Your task to perform on an android device: Add macbook pro to the cart on bestbuy.com Image 0: 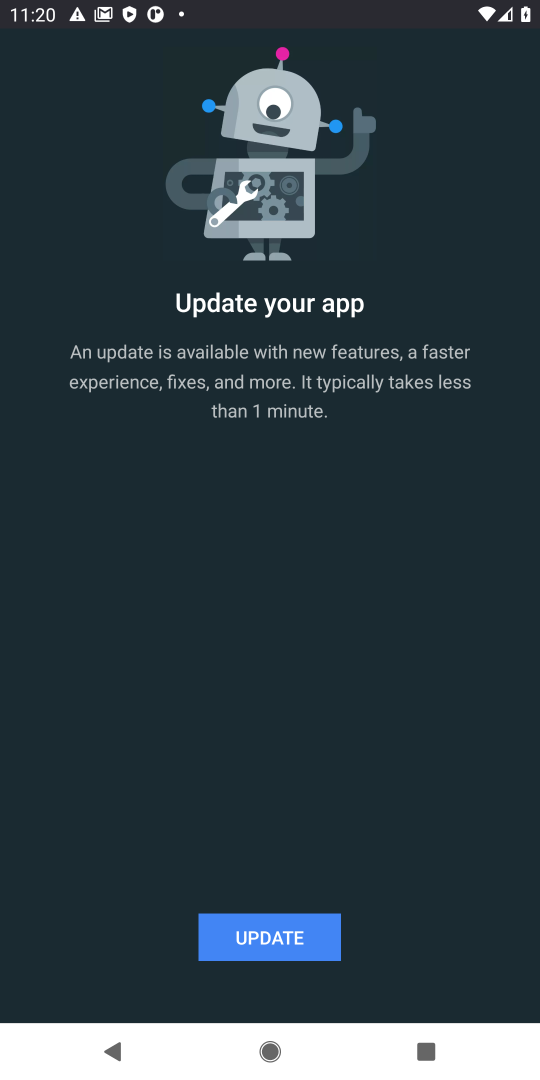
Step 0: press home button
Your task to perform on an android device: Add macbook pro to the cart on bestbuy.com Image 1: 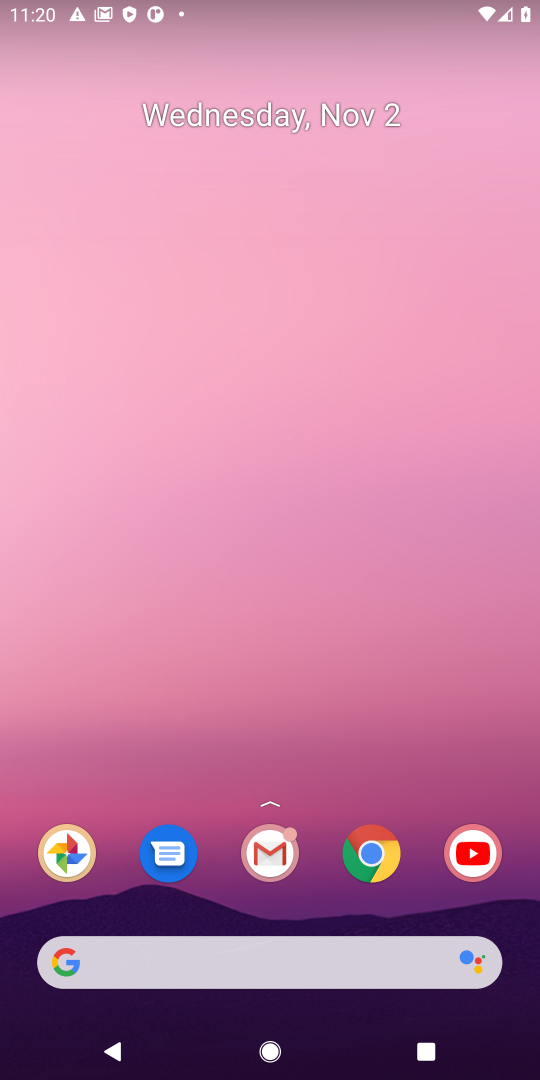
Step 1: click (363, 848)
Your task to perform on an android device: Add macbook pro to the cart on bestbuy.com Image 2: 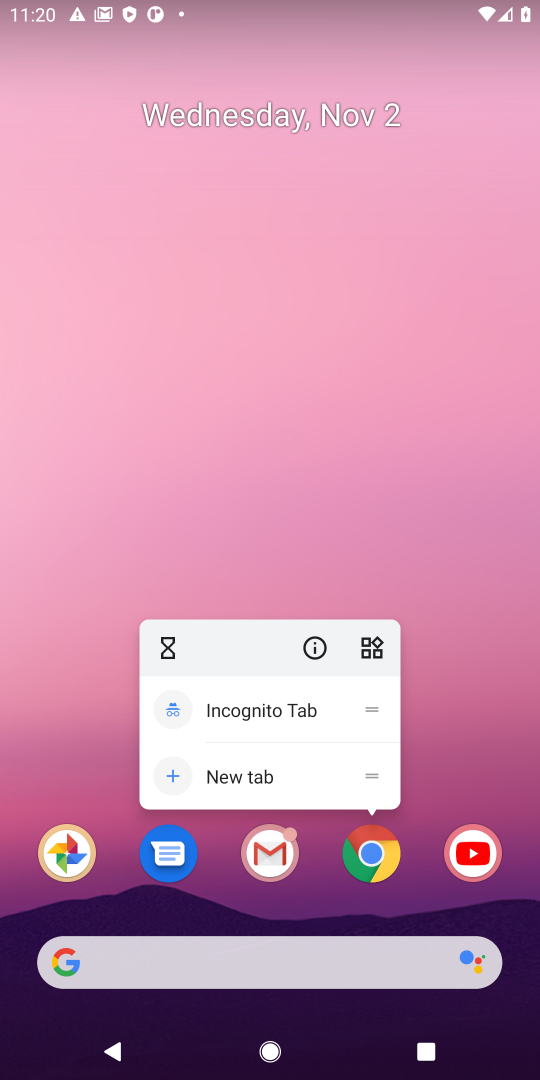
Step 2: click (370, 854)
Your task to perform on an android device: Add macbook pro to the cart on bestbuy.com Image 3: 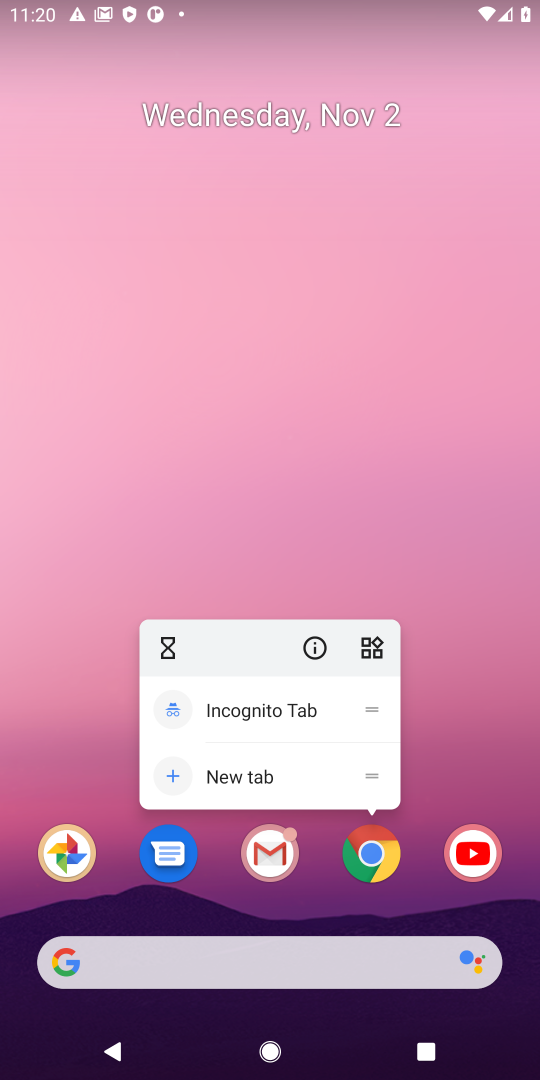
Step 3: click (373, 849)
Your task to perform on an android device: Add macbook pro to the cart on bestbuy.com Image 4: 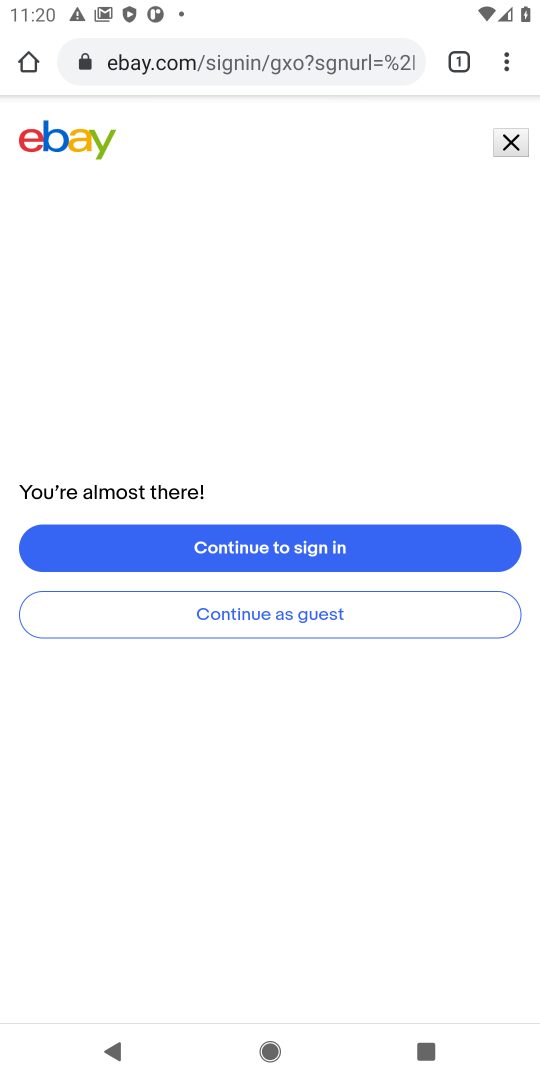
Step 4: click (286, 61)
Your task to perform on an android device: Add macbook pro to the cart on bestbuy.com Image 5: 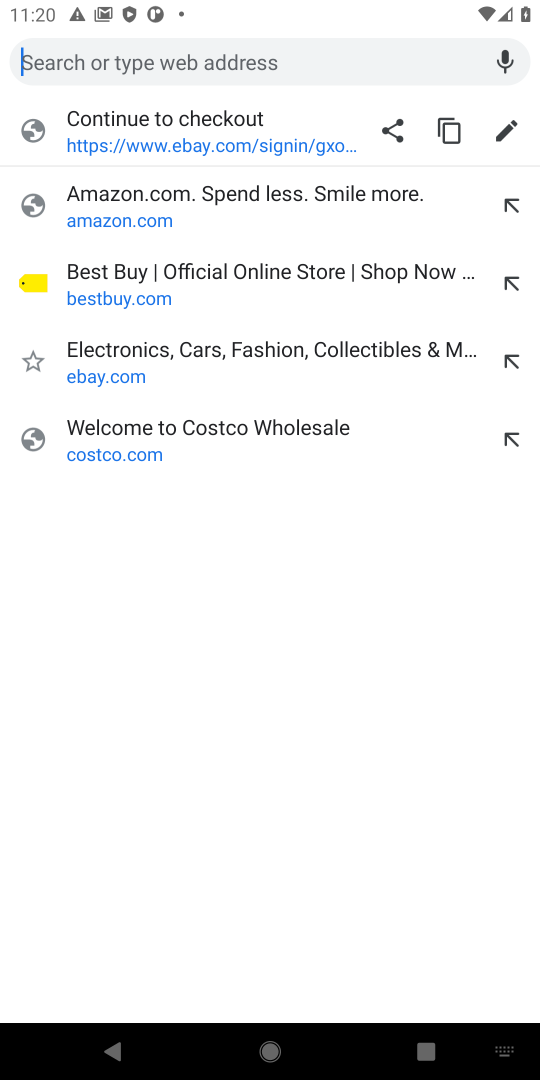
Step 5: click (94, 296)
Your task to perform on an android device: Add macbook pro to the cart on bestbuy.com Image 6: 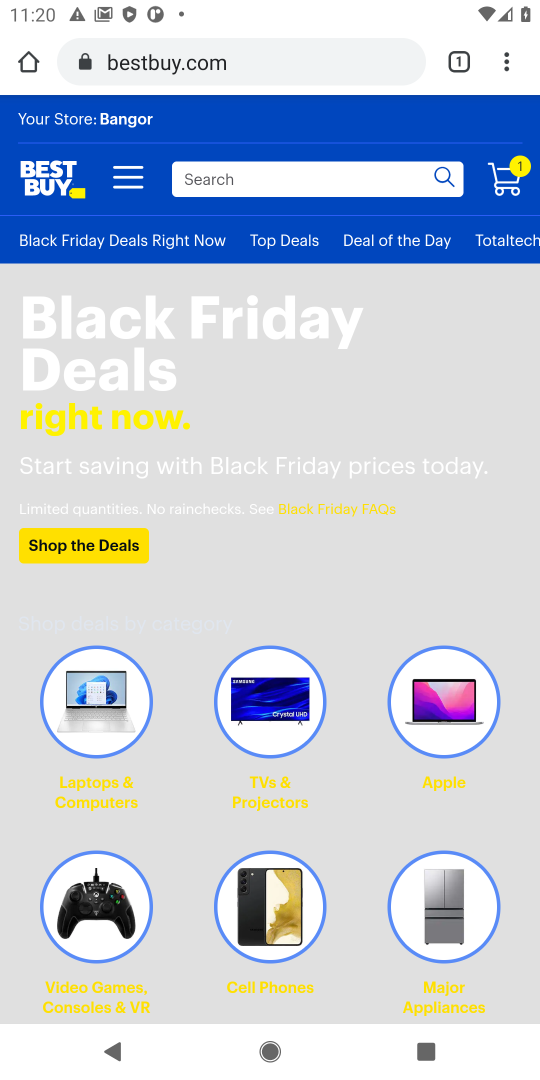
Step 6: click (271, 177)
Your task to perform on an android device: Add macbook pro to the cart on bestbuy.com Image 7: 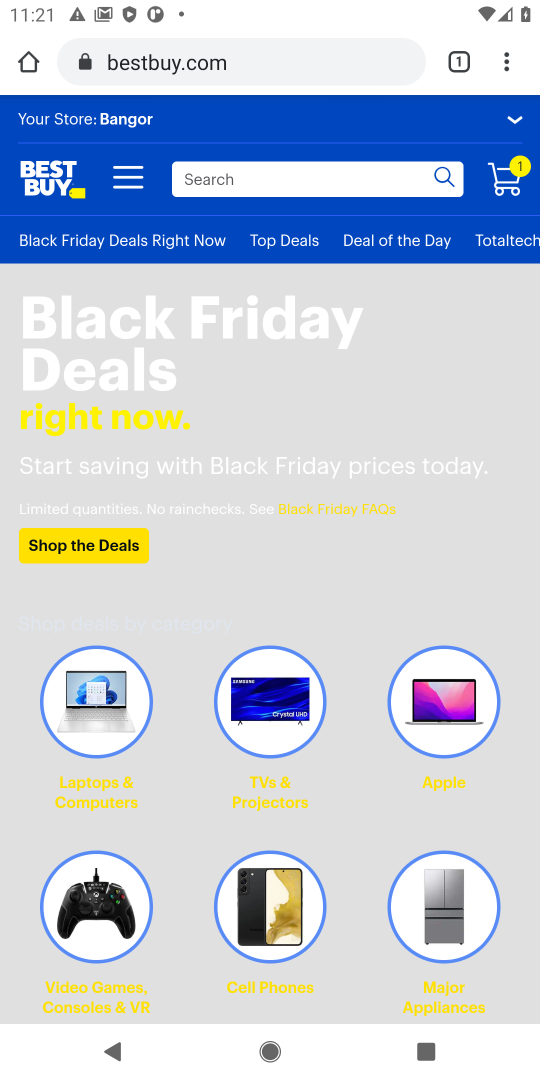
Step 7: click (271, 178)
Your task to perform on an android device: Add macbook pro to the cart on bestbuy.com Image 8: 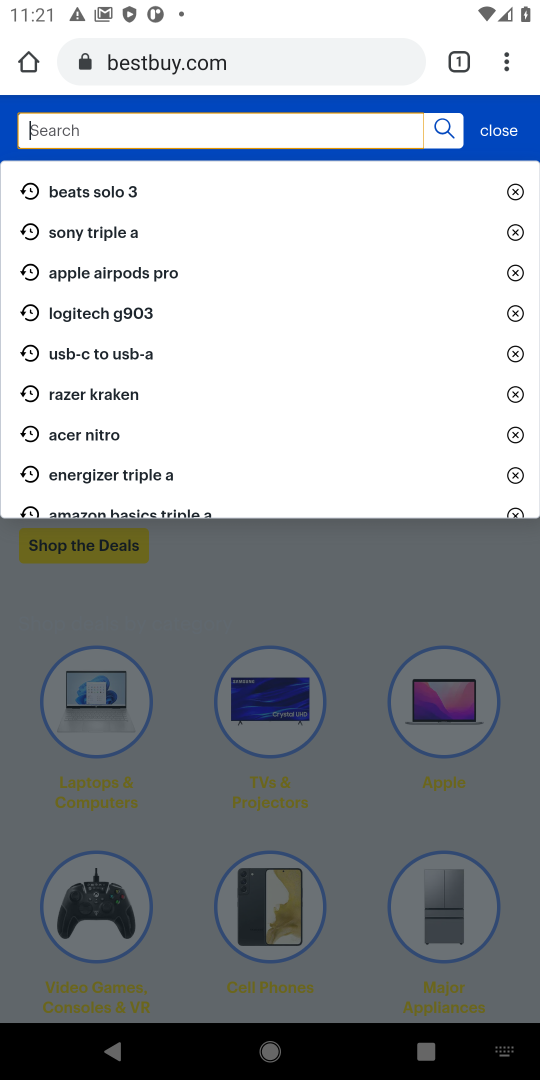
Step 8: type " macbook pro"
Your task to perform on an android device: Add macbook pro to the cart on bestbuy.com Image 9: 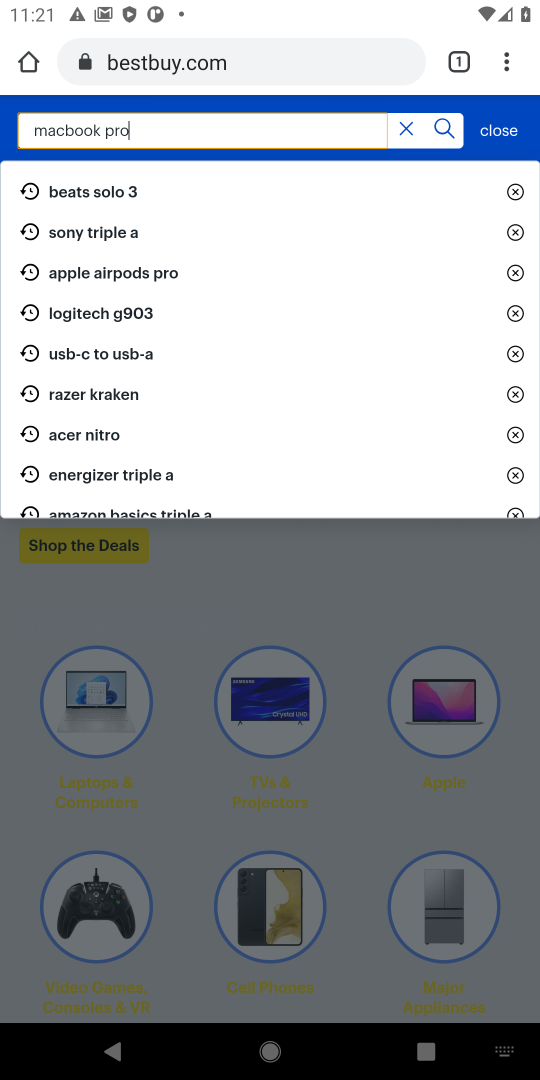
Step 9: press enter
Your task to perform on an android device: Add macbook pro to the cart on bestbuy.com Image 10: 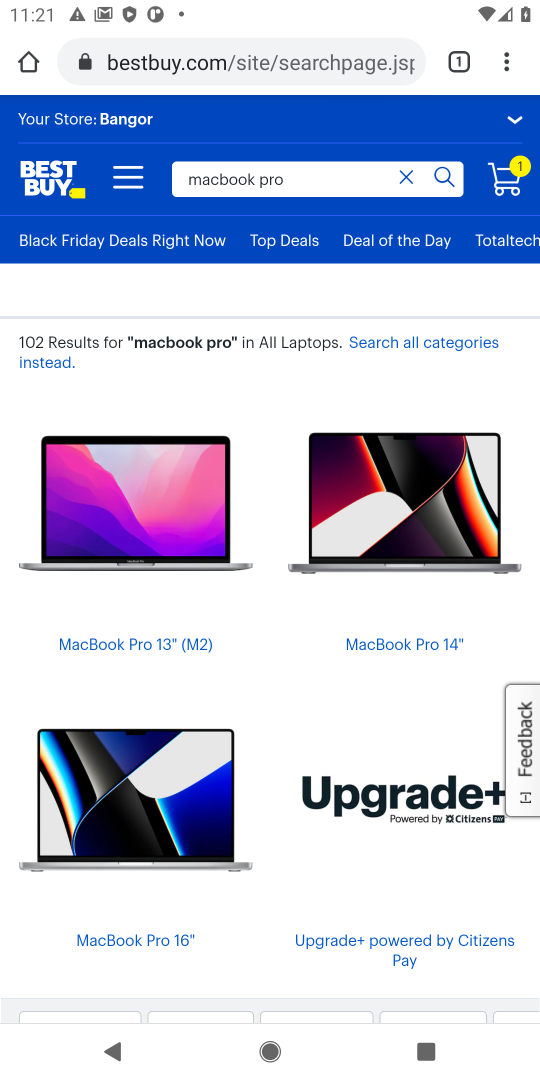
Step 10: click (126, 533)
Your task to perform on an android device: Add macbook pro to the cart on bestbuy.com Image 11: 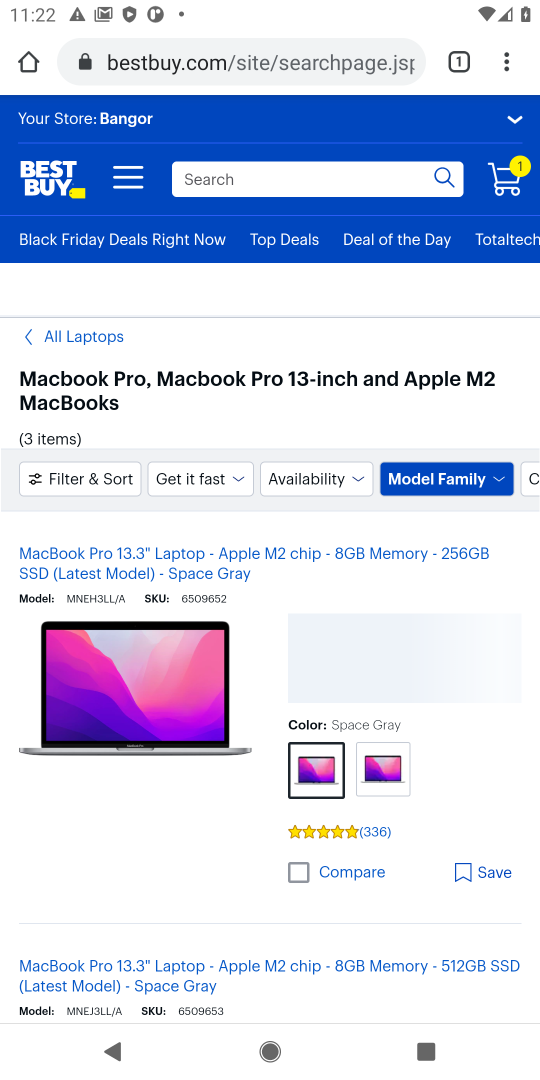
Step 11: drag from (189, 863) to (273, 591)
Your task to perform on an android device: Add macbook pro to the cart on bestbuy.com Image 12: 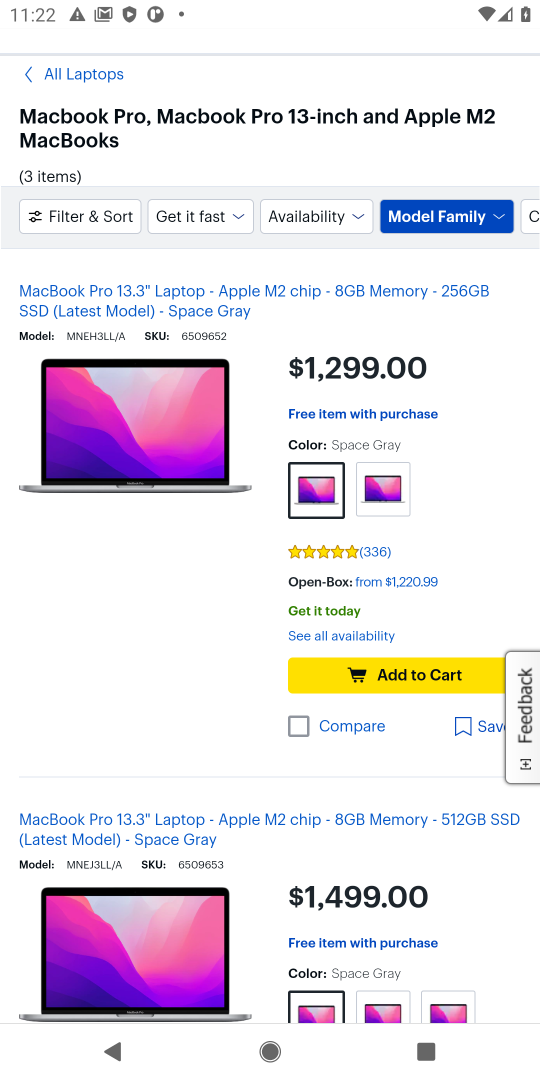
Step 12: click (412, 669)
Your task to perform on an android device: Add macbook pro to the cart on bestbuy.com Image 13: 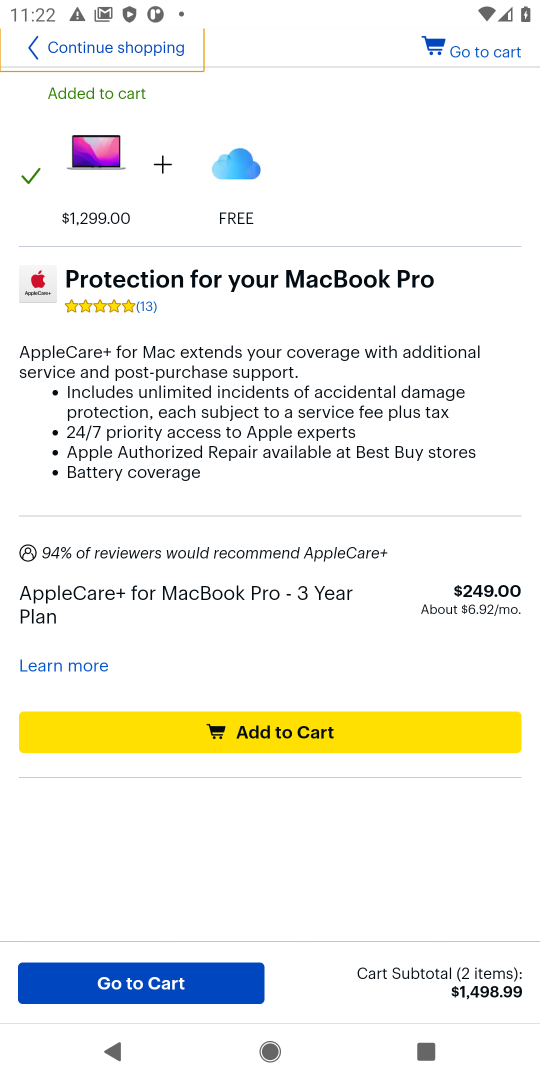
Step 13: click (313, 724)
Your task to perform on an android device: Add macbook pro to the cart on bestbuy.com Image 14: 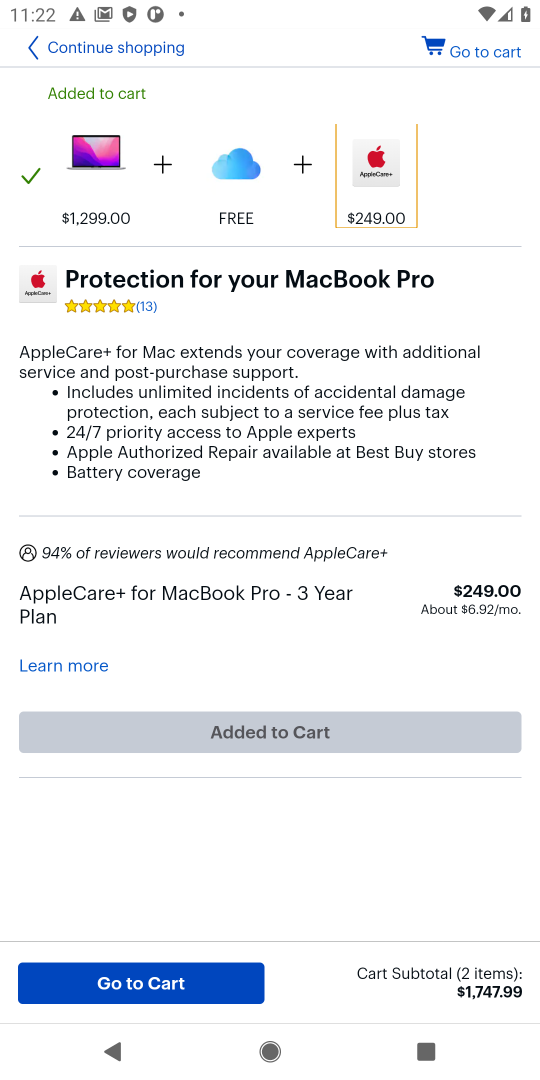
Step 14: click (155, 983)
Your task to perform on an android device: Add macbook pro to the cart on bestbuy.com Image 15: 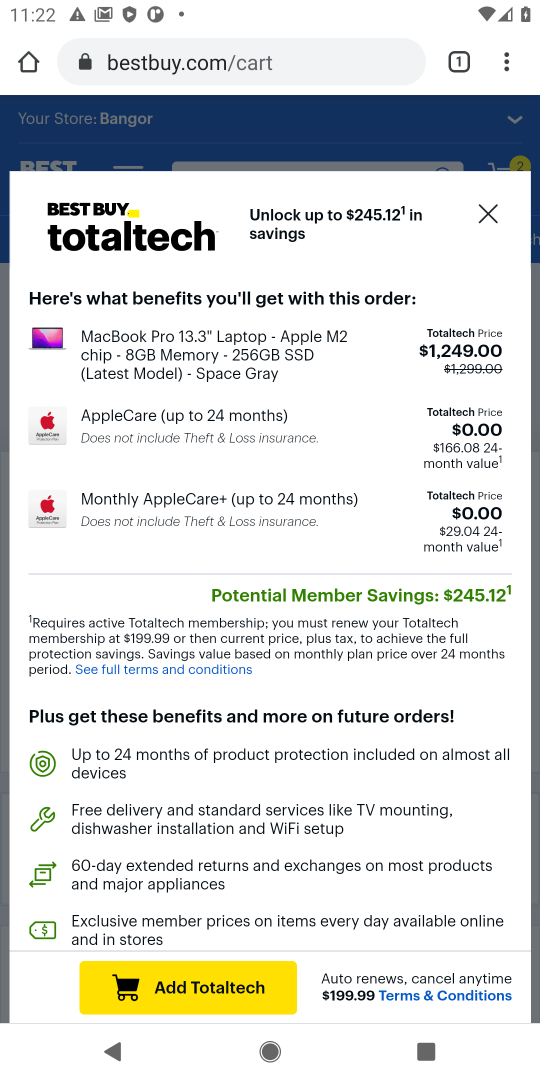
Step 15: click (488, 209)
Your task to perform on an android device: Add macbook pro to the cart on bestbuy.com Image 16: 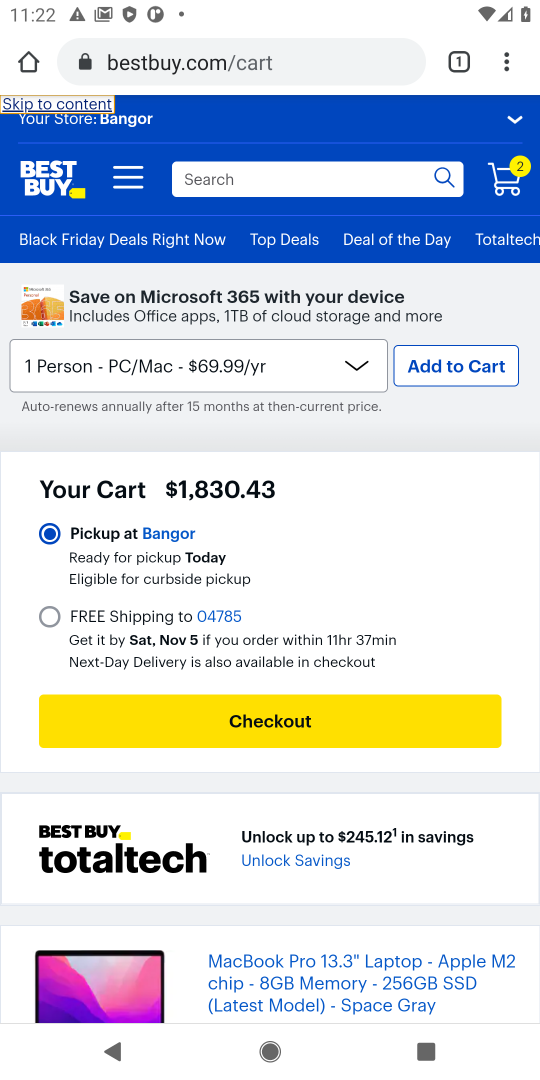
Step 16: drag from (271, 886) to (479, 188)
Your task to perform on an android device: Add macbook pro to the cart on bestbuy.com Image 17: 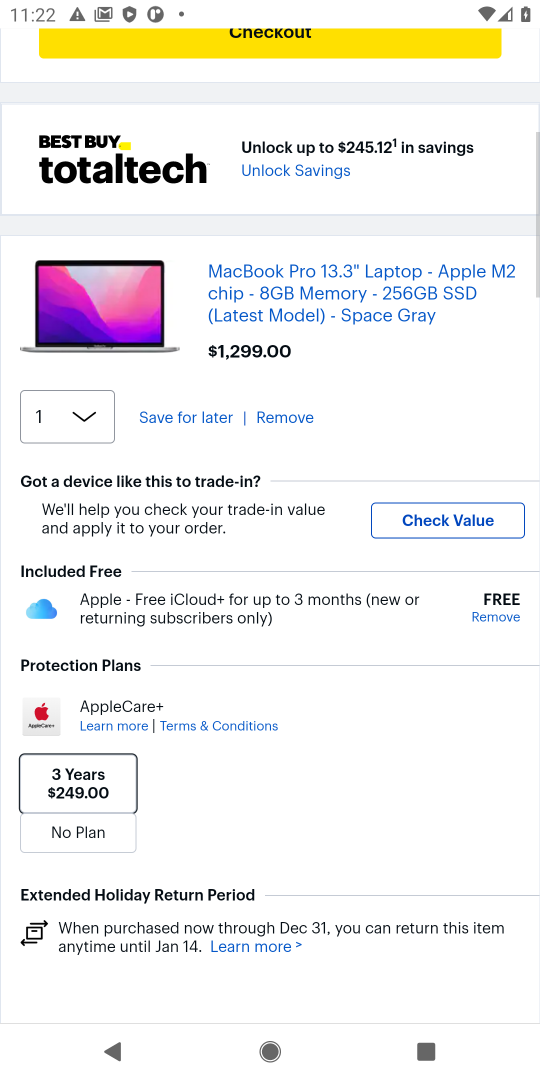
Step 17: drag from (311, 828) to (405, 150)
Your task to perform on an android device: Add macbook pro to the cart on bestbuy.com Image 18: 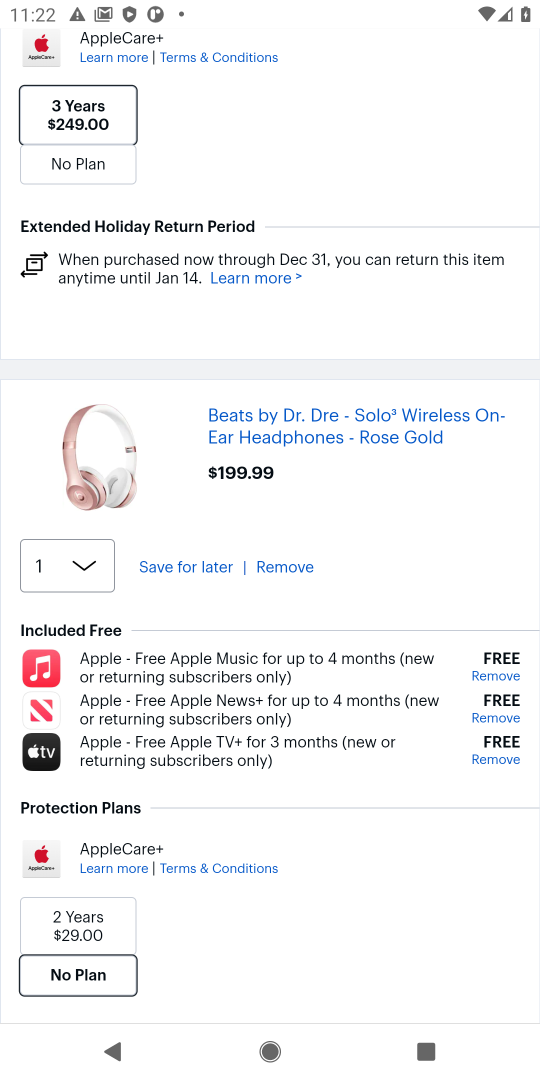
Step 18: click (292, 569)
Your task to perform on an android device: Add macbook pro to the cart on bestbuy.com Image 19: 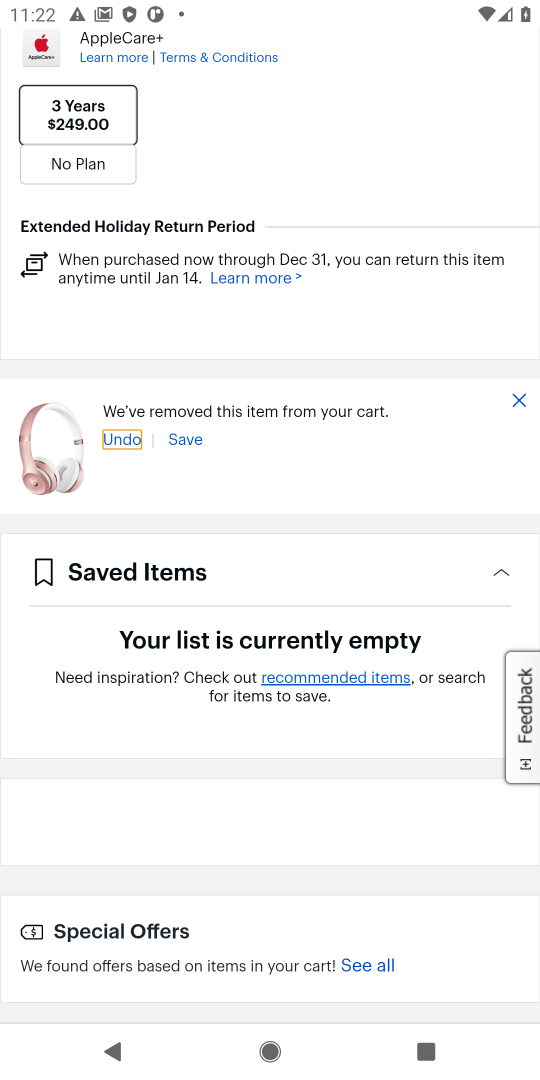
Step 19: task complete